Your task to perform on an android device: turn vacation reply on in the gmail app Image 0: 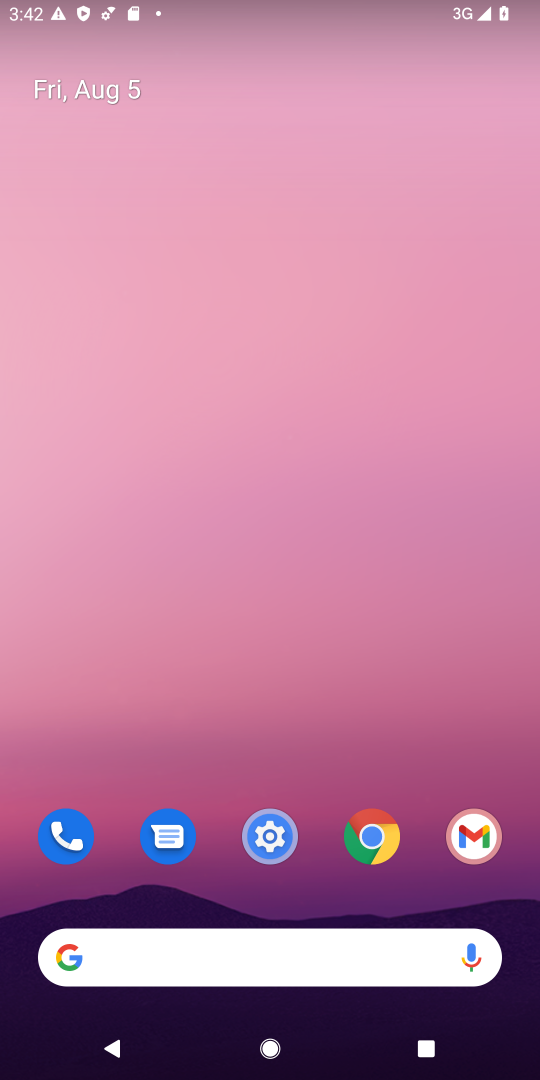
Step 0: drag from (296, 812) to (485, 14)
Your task to perform on an android device: turn vacation reply on in the gmail app Image 1: 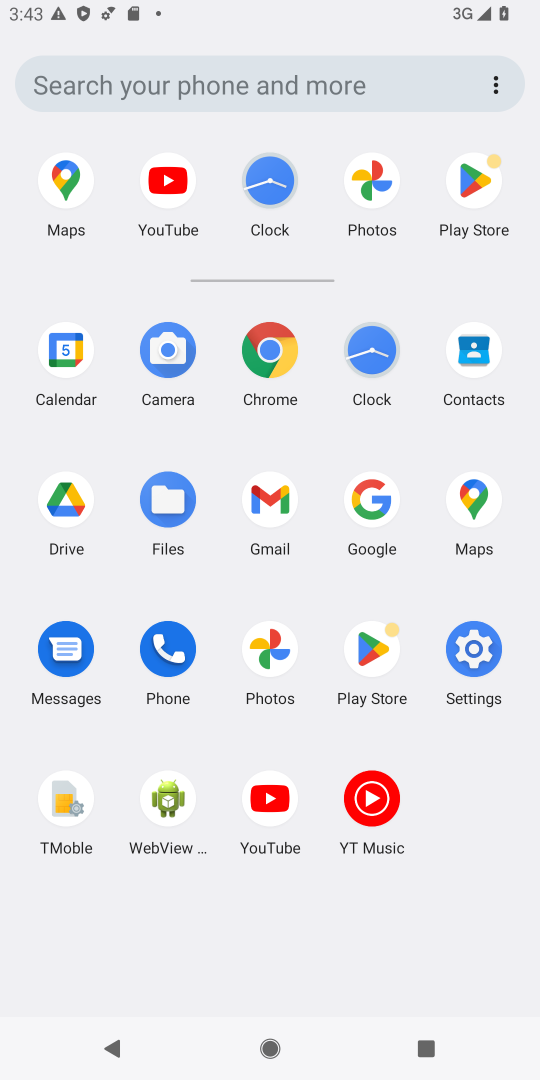
Step 1: click (283, 500)
Your task to perform on an android device: turn vacation reply on in the gmail app Image 2: 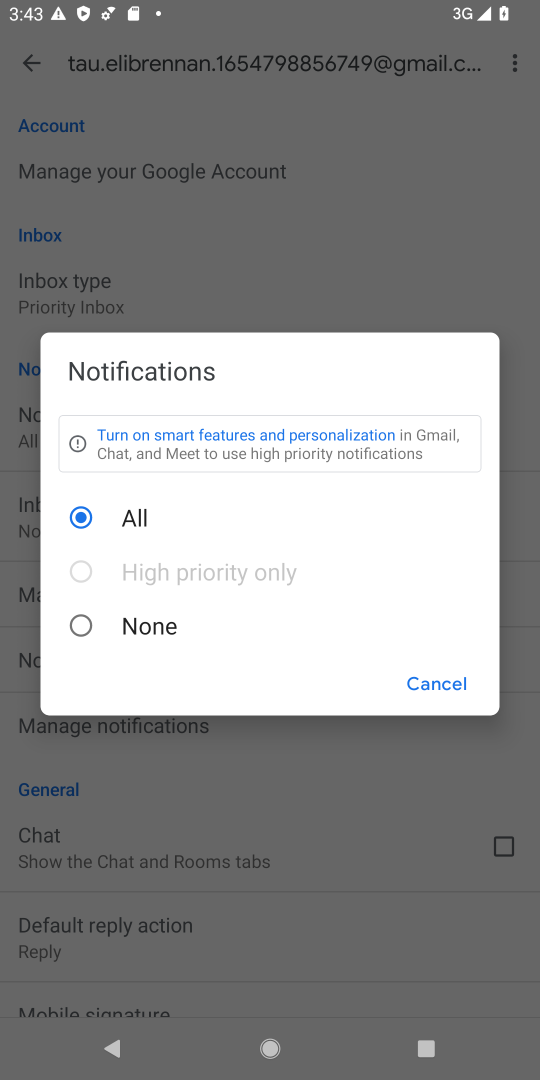
Step 2: click (452, 689)
Your task to perform on an android device: turn vacation reply on in the gmail app Image 3: 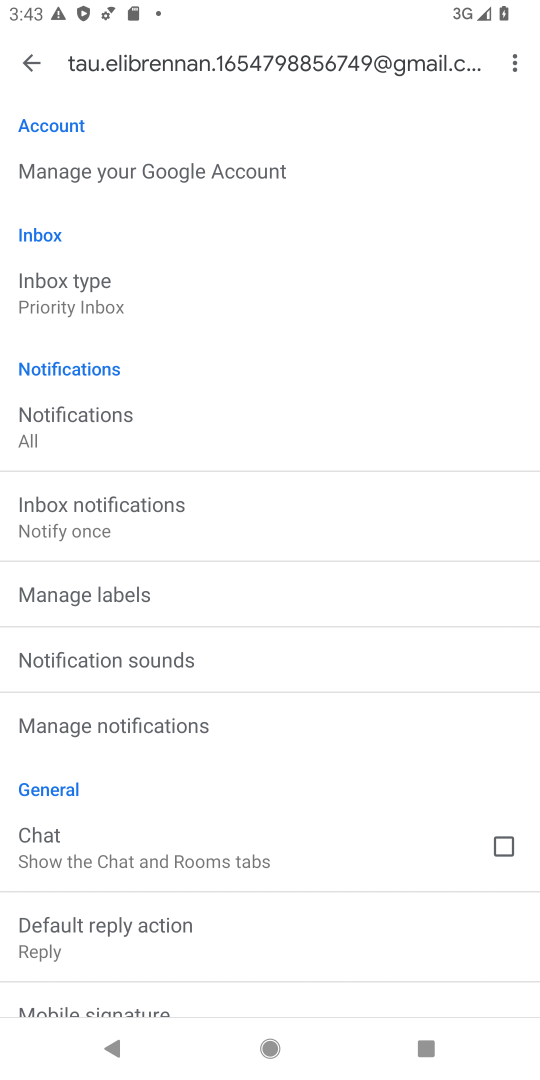
Step 3: drag from (248, 931) to (402, 287)
Your task to perform on an android device: turn vacation reply on in the gmail app Image 4: 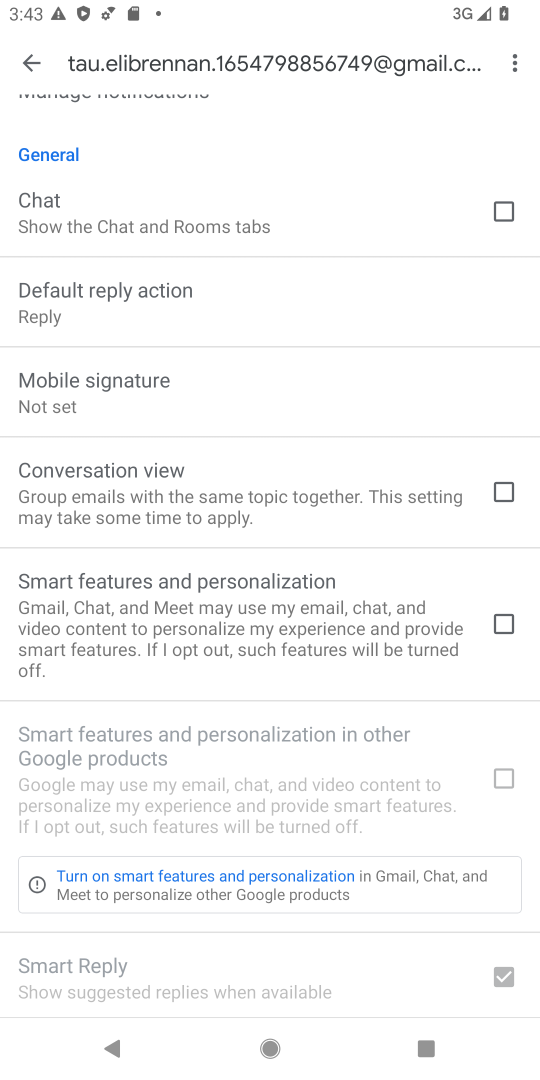
Step 4: drag from (276, 920) to (367, 268)
Your task to perform on an android device: turn vacation reply on in the gmail app Image 5: 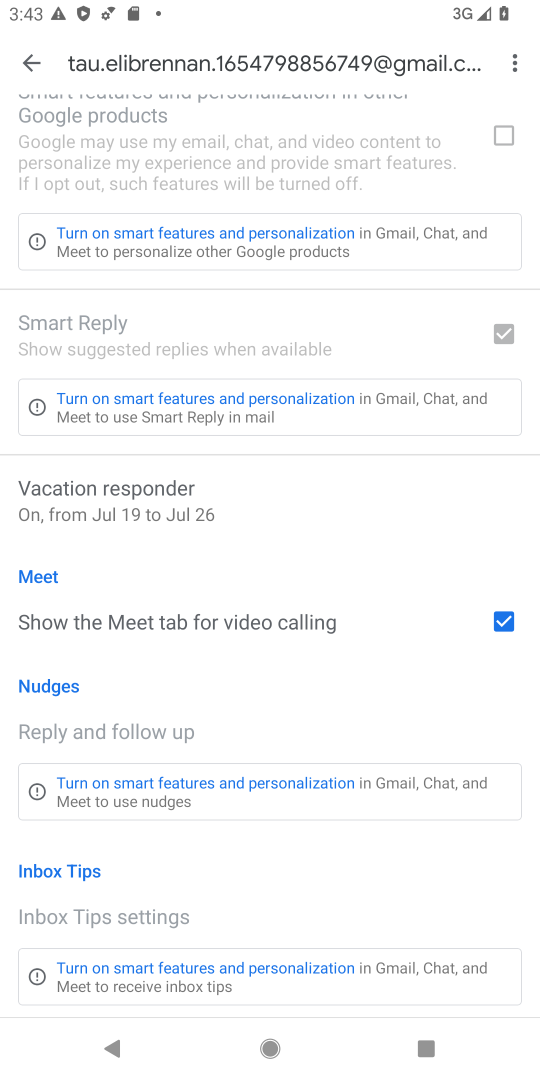
Step 5: click (186, 505)
Your task to perform on an android device: turn vacation reply on in the gmail app Image 6: 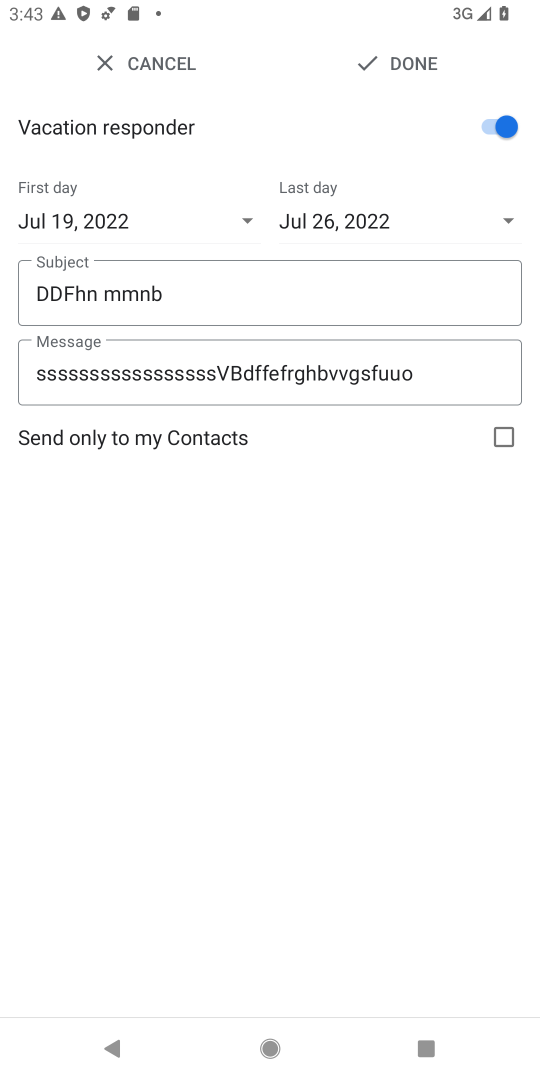
Step 6: task complete